Your task to perform on an android device: toggle priority inbox in the gmail app Image 0: 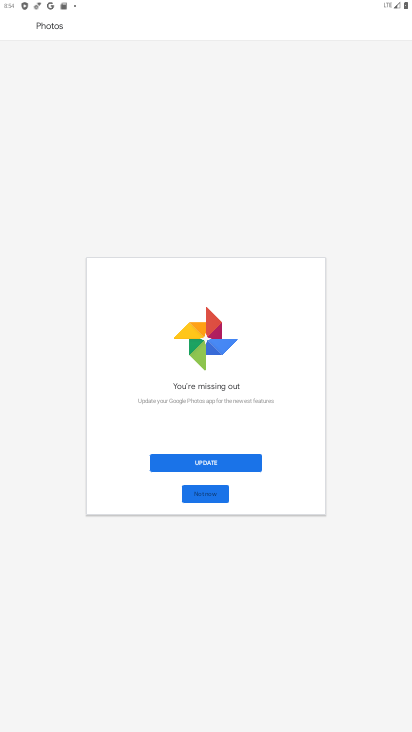
Step 0: press home button
Your task to perform on an android device: toggle priority inbox in the gmail app Image 1: 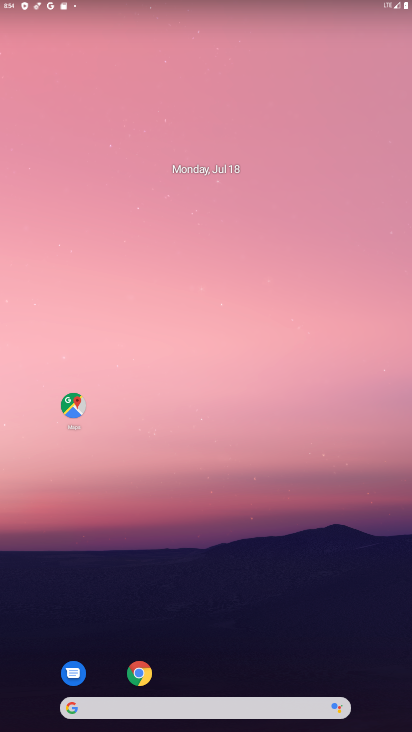
Step 1: drag from (189, 682) to (204, 119)
Your task to perform on an android device: toggle priority inbox in the gmail app Image 2: 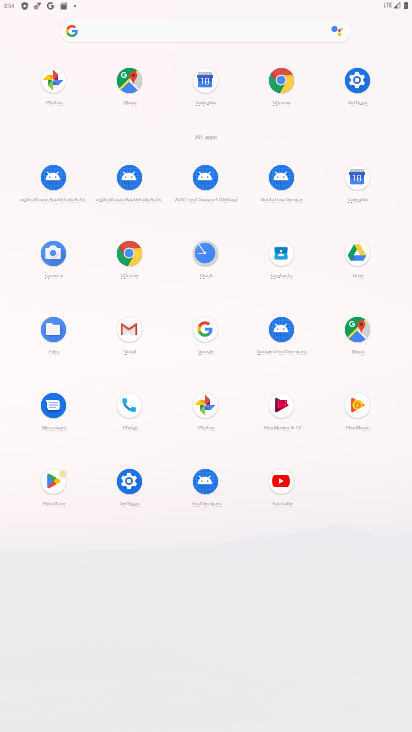
Step 2: click (129, 331)
Your task to perform on an android device: toggle priority inbox in the gmail app Image 3: 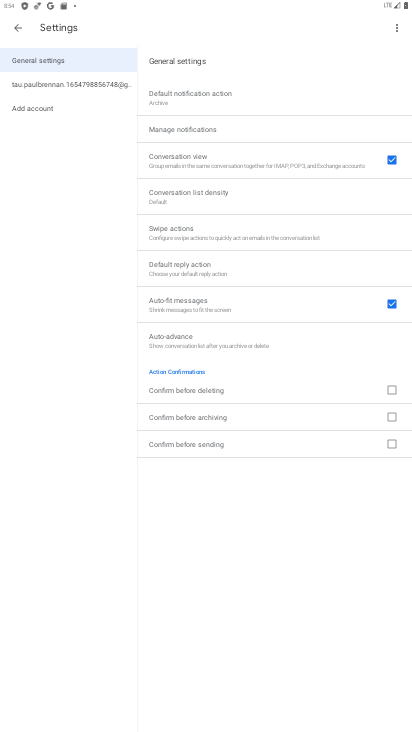
Step 3: click (73, 80)
Your task to perform on an android device: toggle priority inbox in the gmail app Image 4: 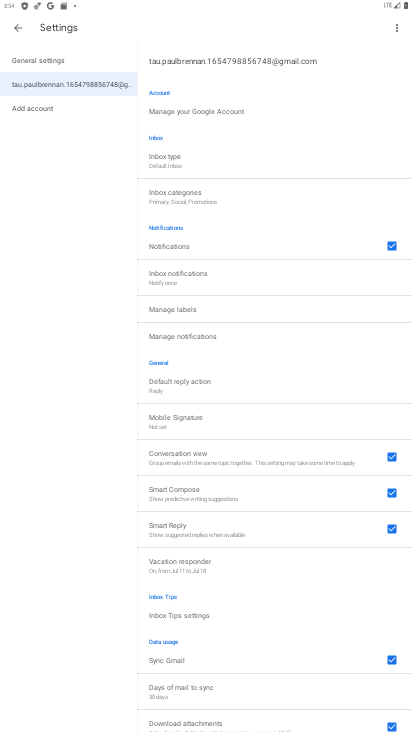
Step 4: click (179, 157)
Your task to perform on an android device: toggle priority inbox in the gmail app Image 5: 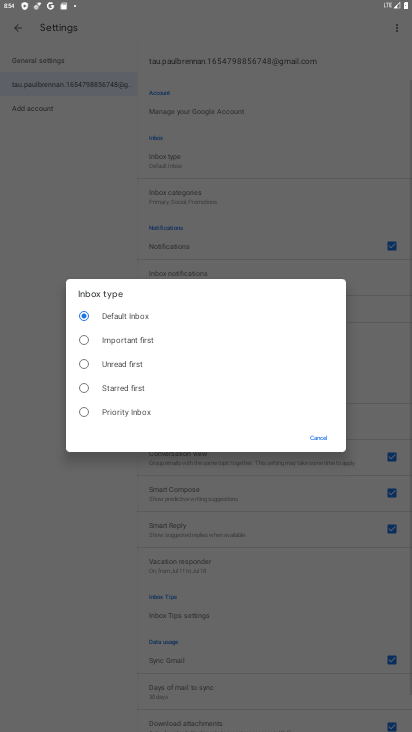
Step 5: click (81, 414)
Your task to perform on an android device: toggle priority inbox in the gmail app Image 6: 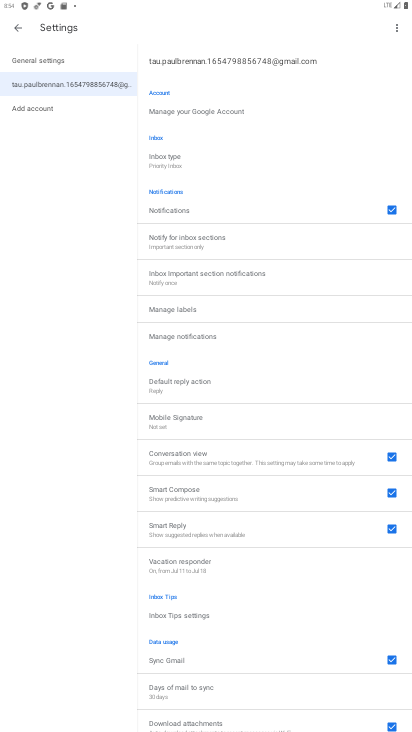
Step 6: task complete